Your task to perform on an android device: turn off airplane mode Image 0: 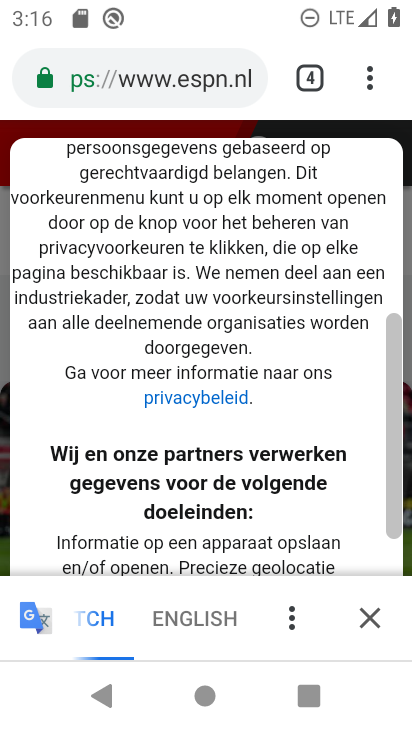
Step 0: press back button
Your task to perform on an android device: turn off airplane mode Image 1: 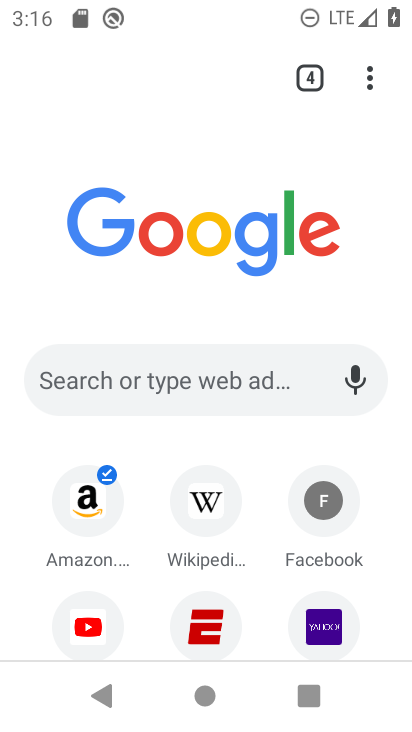
Step 1: task complete